Your task to perform on an android device: see sites visited before in the chrome app Image 0: 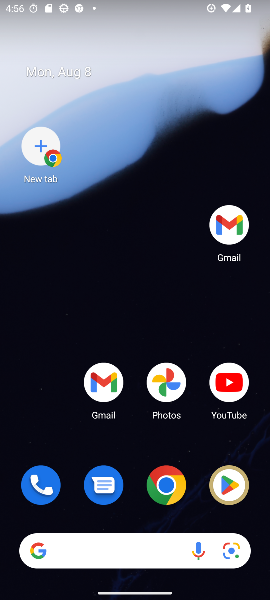
Step 0: drag from (85, 587) to (64, 286)
Your task to perform on an android device: see sites visited before in the chrome app Image 1: 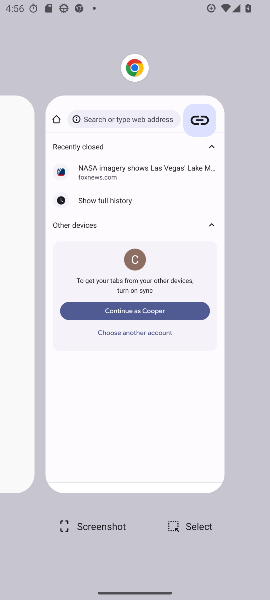
Step 1: click (197, 82)
Your task to perform on an android device: see sites visited before in the chrome app Image 2: 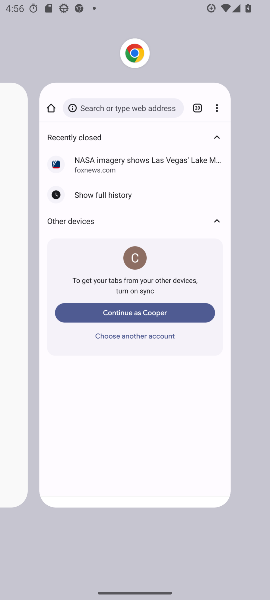
Step 2: press back button
Your task to perform on an android device: see sites visited before in the chrome app Image 3: 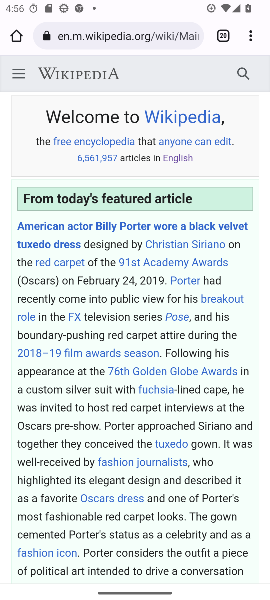
Step 3: drag from (246, 35) to (141, 464)
Your task to perform on an android device: see sites visited before in the chrome app Image 4: 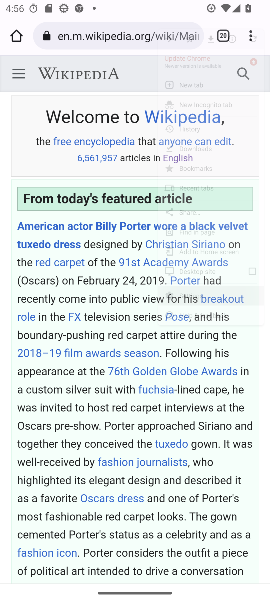
Step 4: click (141, 464)
Your task to perform on an android device: see sites visited before in the chrome app Image 5: 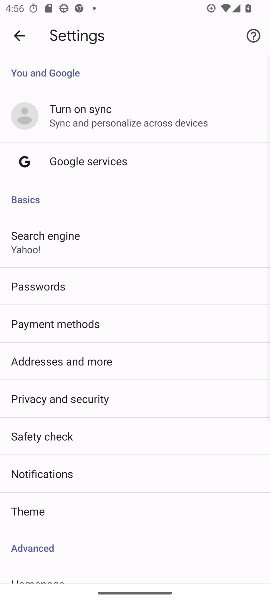
Step 5: drag from (64, 410) to (11, 220)
Your task to perform on an android device: see sites visited before in the chrome app Image 6: 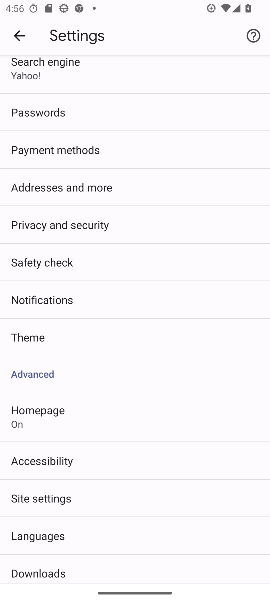
Step 6: click (21, 34)
Your task to perform on an android device: see sites visited before in the chrome app Image 7: 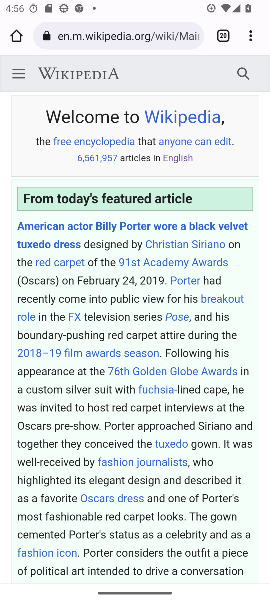
Step 7: drag from (249, 39) to (156, 282)
Your task to perform on an android device: see sites visited before in the chrome app Image 8: 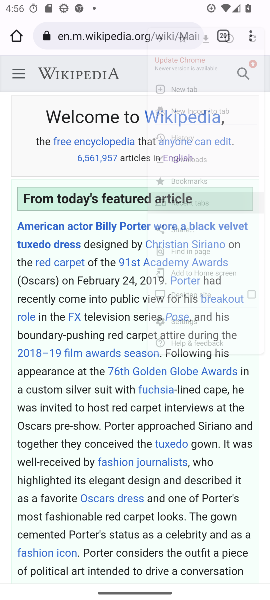
Step 8: click (166, 286)
Your task to perform on an android device: see sites visited before in the chrome app Image 9: 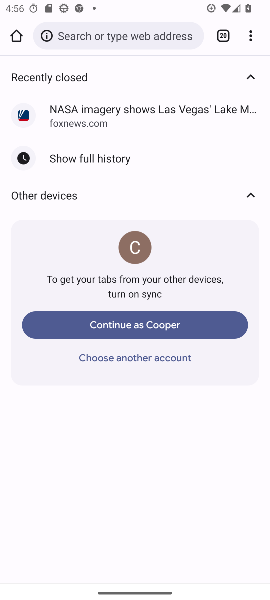
Step 9: task complete